Your task to perform on an android device: Open the calendar app, open the side menu, and click the "Day" option Image 0: 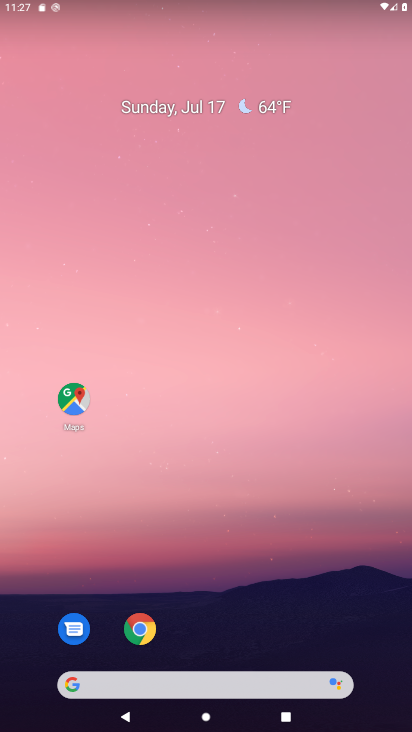
Step 0: drag from (260, 664) to (232, 228)
Your task to perform on an android device: Open the calendar app, open the side menu, and click the "Day" option Image 1: 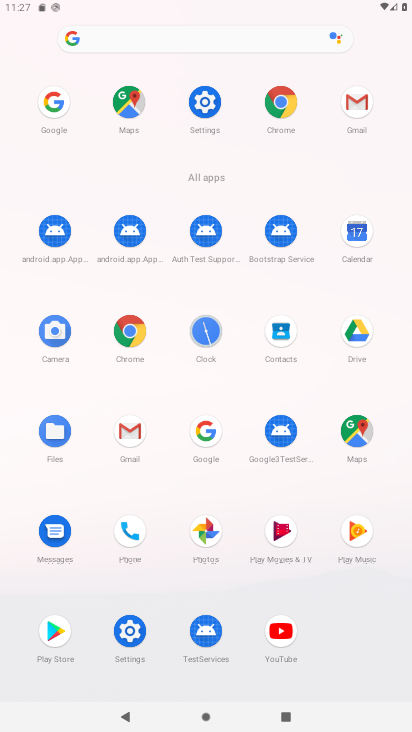
Step 1: click (202, 331)
Your task to perform on an android device: Open the calendar app, open the side menu, and click the "Day" option Image 2: 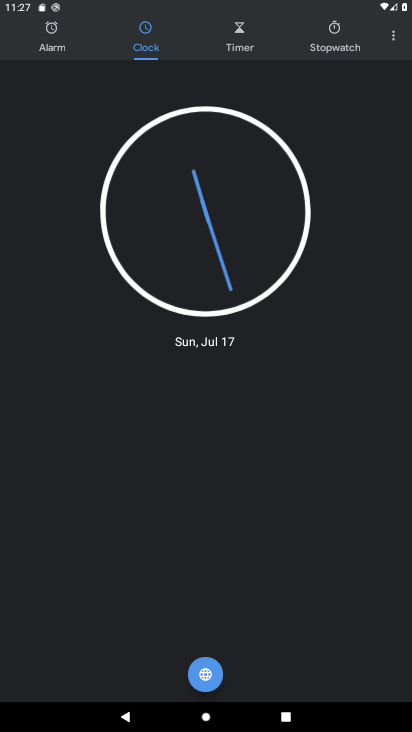
Step 2: press home button
Your task to perform on an android device: Open the calendar app, open the side menu, and click the "Day" option Image 3: 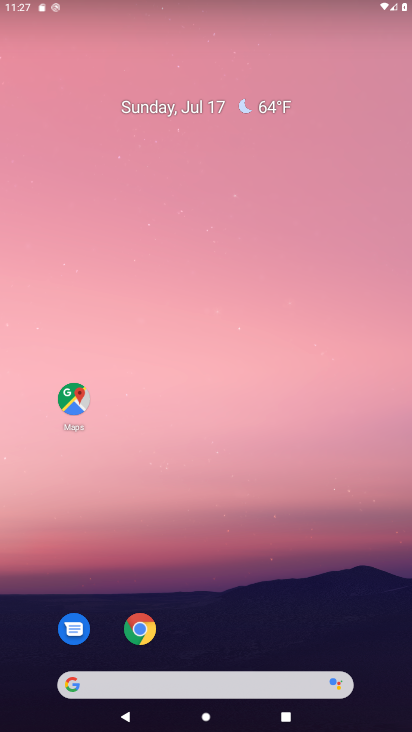
Step 3: drag from (140, 663) to (154, 264)
Your task to perform on an android device: Open the calendar app, open the side menu, and click the "Day" option Image 4: 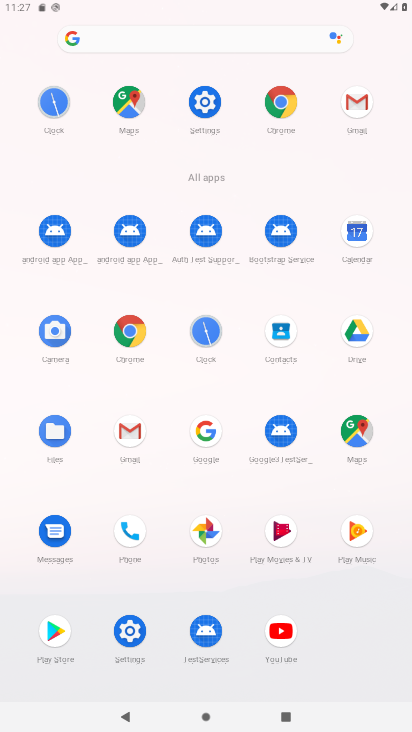
Step 4: click (348, 227)
Your task to perform on an android device: Open the calendar app, open the side menu, and click the "Day" option Image 5: 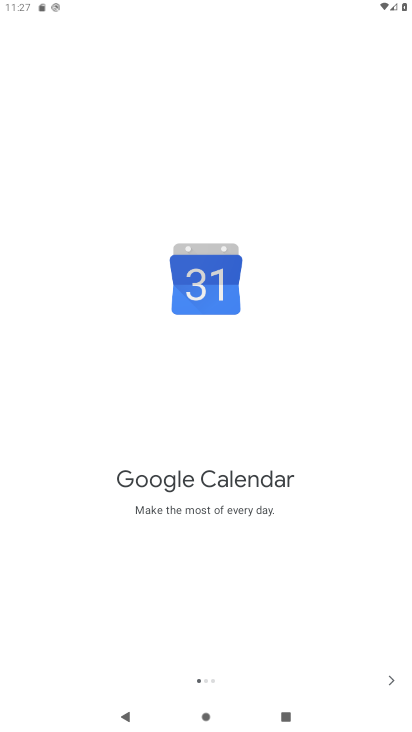
Step 5: click (381, 678)
Your task to perform on an android device: Open the calendar app, open the side menu, and click the "Day" option Image 6: 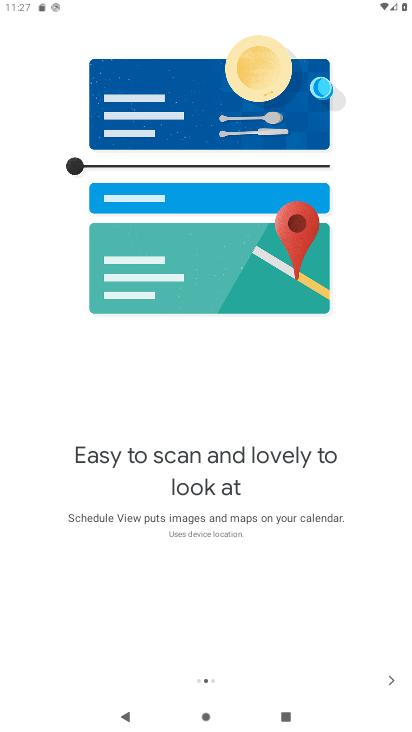
Step 6: click (381, 678)
Your task to perform on an android device: Open the calendar app, open the side menu, and click the "Day" option Image 7: 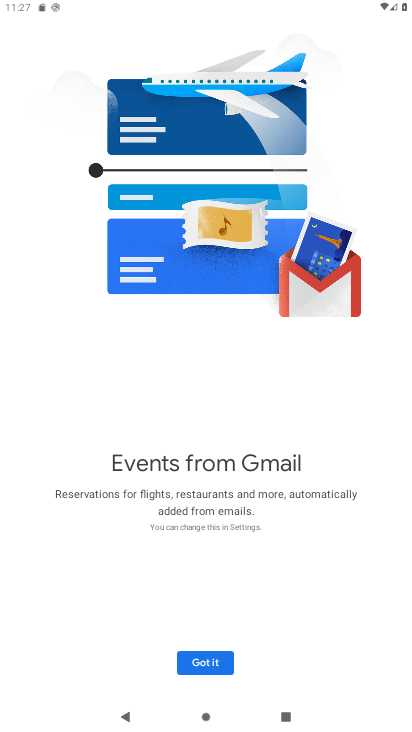
Step 7: click (381, 678)
Your task to perform on an android device: Open the calendar app, open the side menu, and click the "Day" option Image 8: 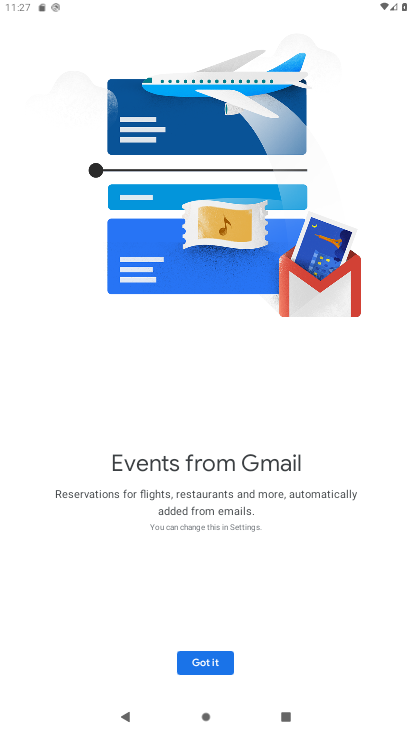
Step 8: click (220, 651)
Your task to perform on an android device: Open the calendar app, open the side menu, and click the "Day" option Image 9: 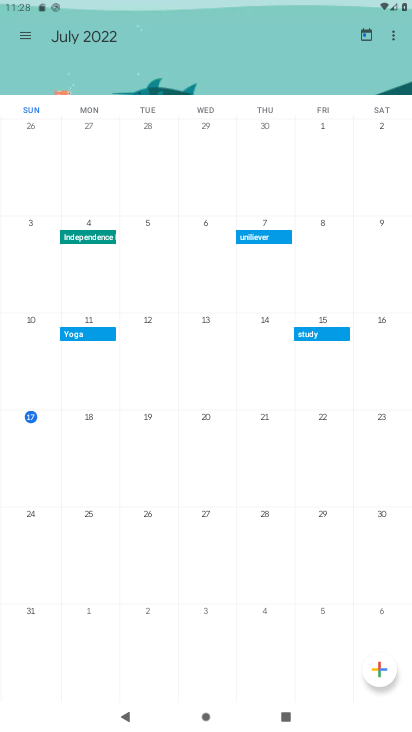
Step 9: click (20, 30)
Your task to perform on an android device: Open the calendar app, open the side menu, and click the "Day" option Image 10: 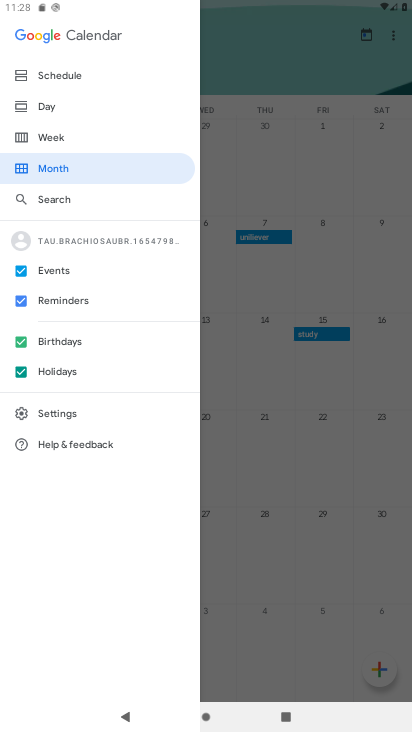
Step 10: click (57, 107)
Your task to perform on an android device: Open the calendar app, open the side menu, and click the "Day" option Image 11: 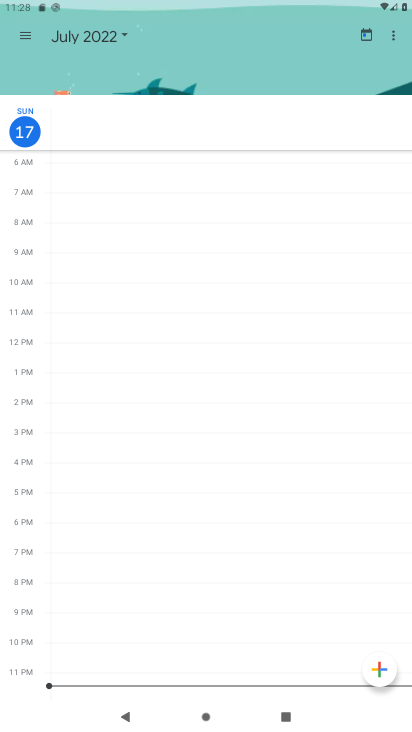
Step 11: task complete